Your task to perform on an android device: Open the stopwatch Image 0: 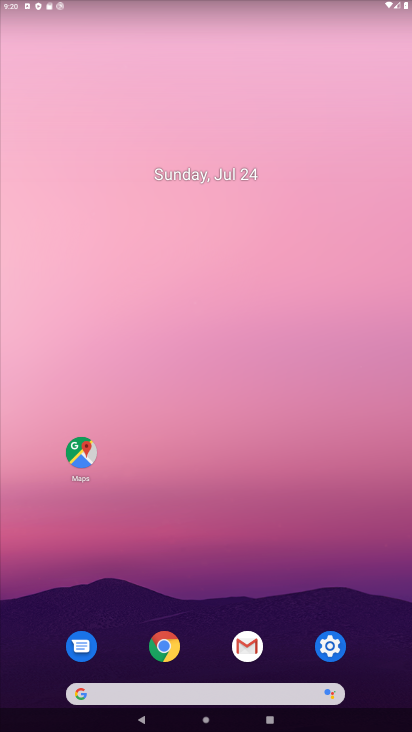
Step 0: drag from (285, 710) to (182, 145)
Your task to perform on an android device: Open the stopwatch Image 1: 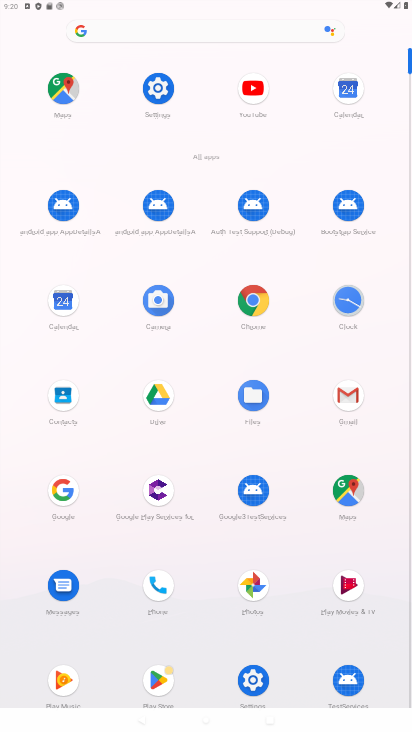
Step 1: click (342, 301)
Your task to perform on an android device: Open the stopwatch Image 2: 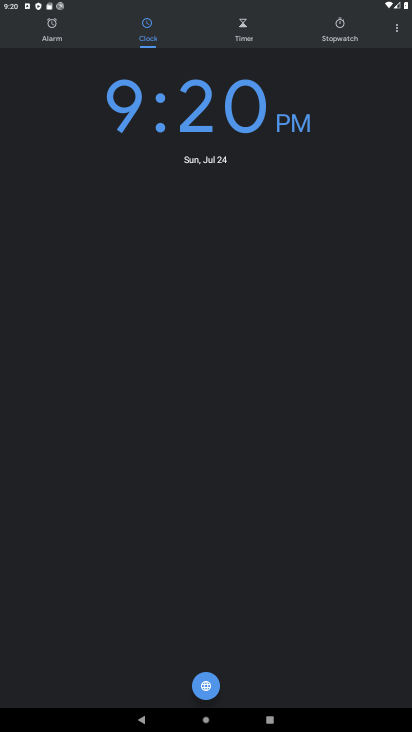
Step 2: click (343, 29)
Your task to perform on an android device: Open the stopwatch Image 3: 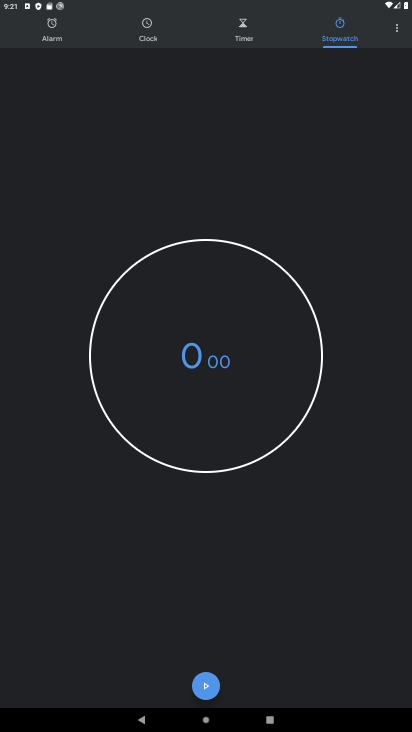
Step 3: task complete